Your task to perform on an android device: change notifications settings Image 0: 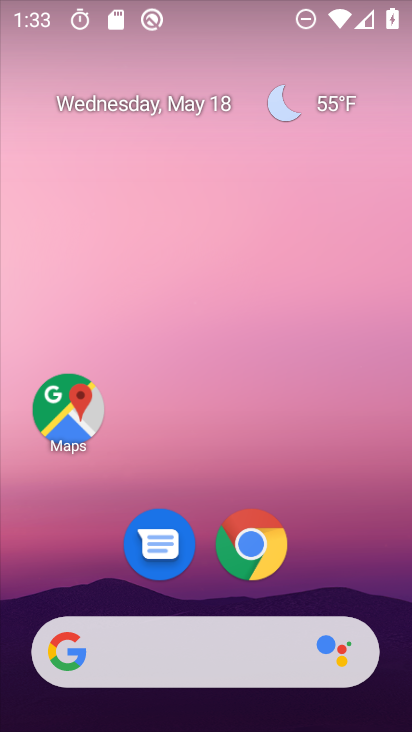
Step 0: drag from (324, 571) to (305, 138)
Your task to perform on an android device: change notifications settings Image 1: 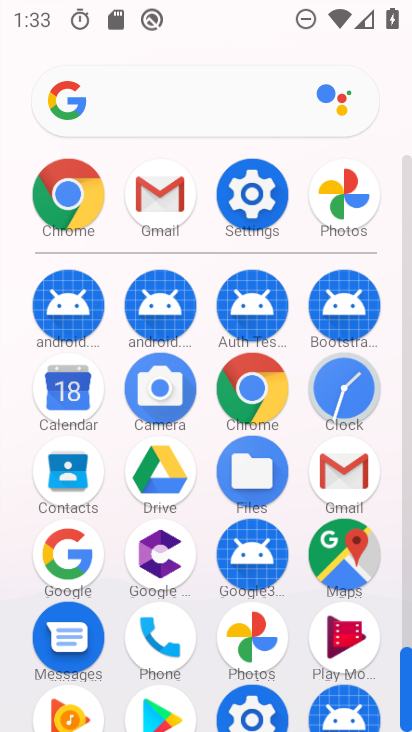
Step 1: click (255, 177)
Your task to perform on an android device: change notifications settings Image 2: 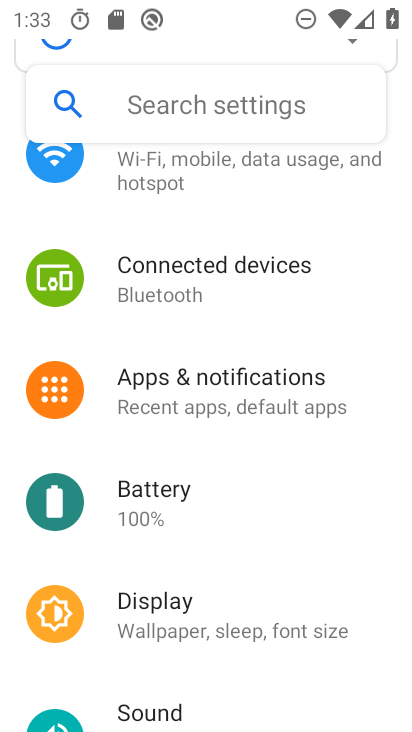
Step 2: click (277, 386)
Your task to perform on an android device: change notifications settings Image 3: 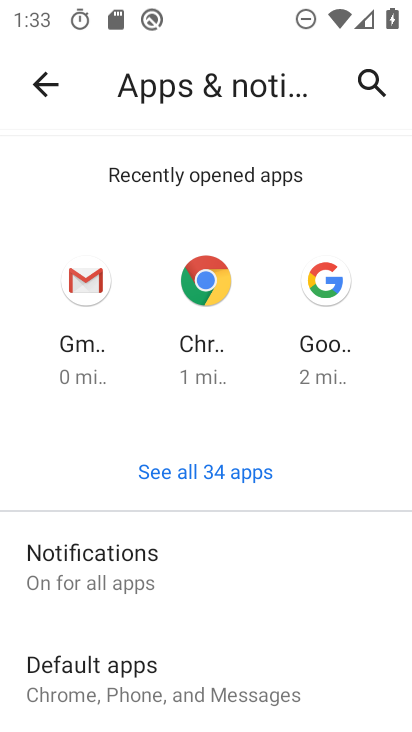
Step 3: drag from (260, 620) to (285, 286)
Your task to perform on an android device: change notifications settings Image 4: 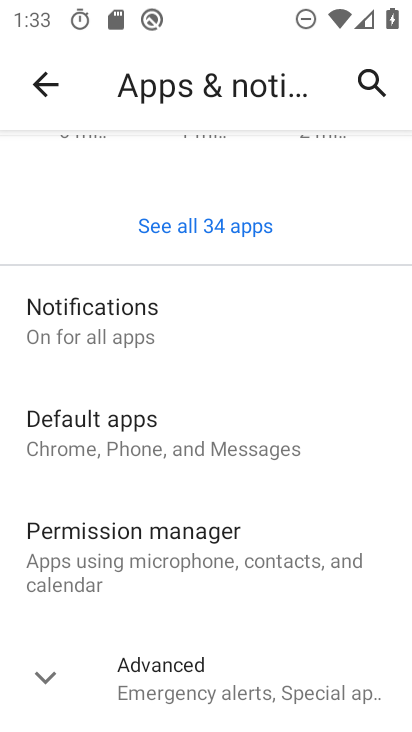
Step 4: click (112, 314)
Your task to perform on an android device: change notifications settings Image 5: 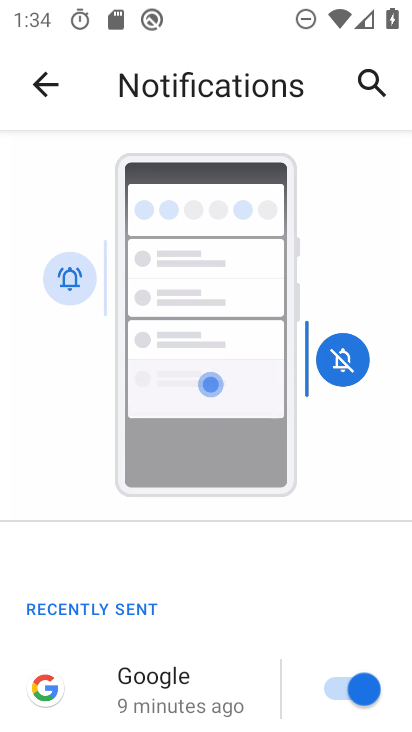
Step 5: drag from (229, 610) to (215, 307)
Your task to perform on an android device: change notifications settings Image 6: 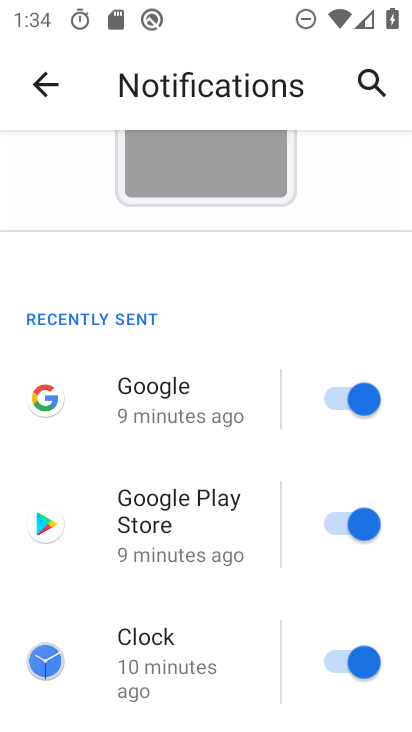
Step 6: drag from (272, 677) to (262, 430)
Your task to perform on an android device: change notifications settings Image 7: 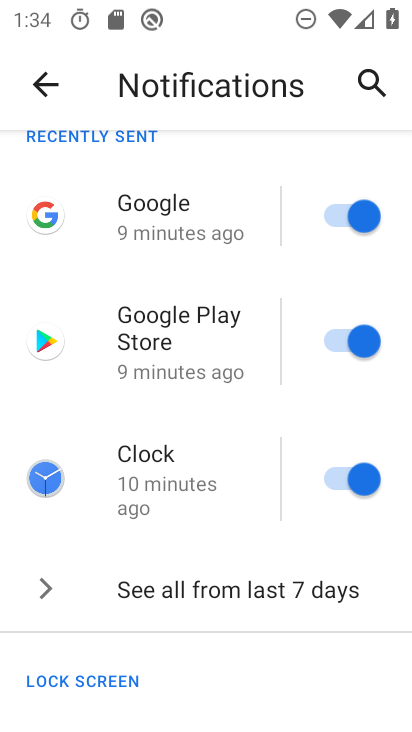
Step 7: drag from (278, 685) to (249, 338)
Your task to perform on an android device: change notifications settings Image 8: 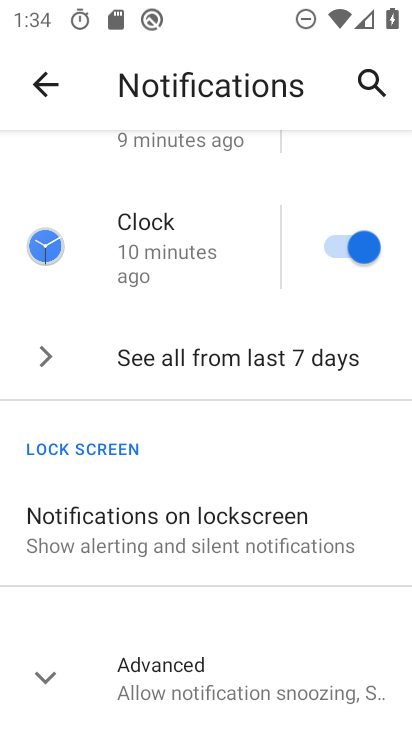
Step 8: click (224, 692)
Your task to perform on an android device: change notifications settings Image 9: 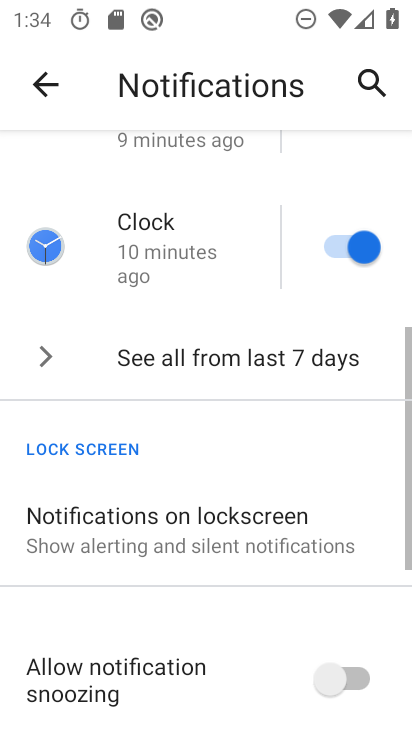
Step 9: drag from (237, 648) to (235, 446)
Your task to perform on an android device: change notifications settings Image 10: 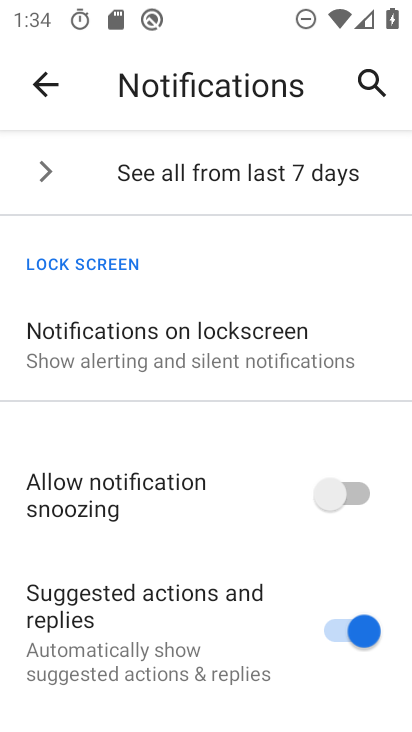
Step 10: click (353, 485)
Your task to perform on an android device: change notifications settings Image 11: 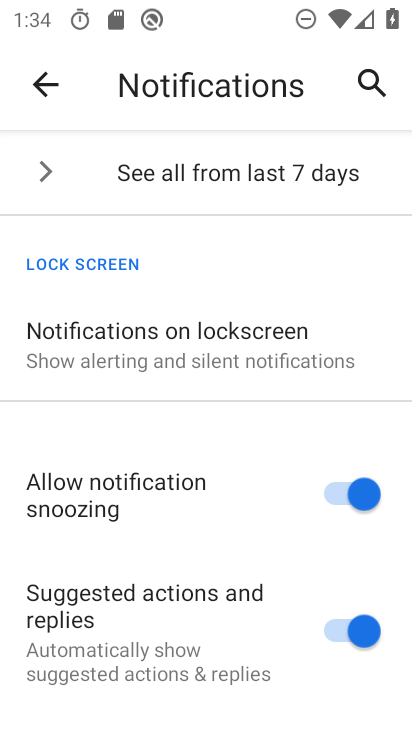
Step 11: task complete